Your task to perform on an android device: turn off wifi Image 0: 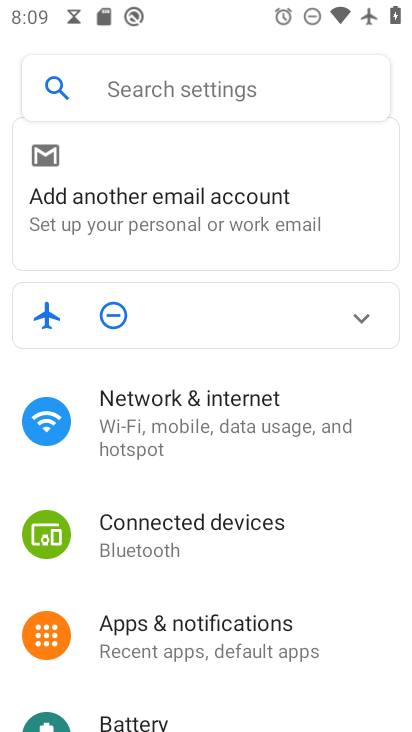
Step 0: press home button
Your task to perform on an android device: turn off wifi Image 1: 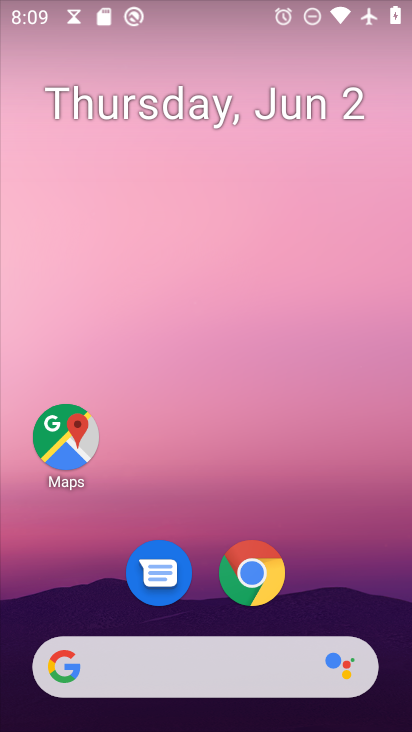
Step 1: drag from (213, 658) to (395, 31)
Your task to perform on an android device: turn off wifi Image 2: 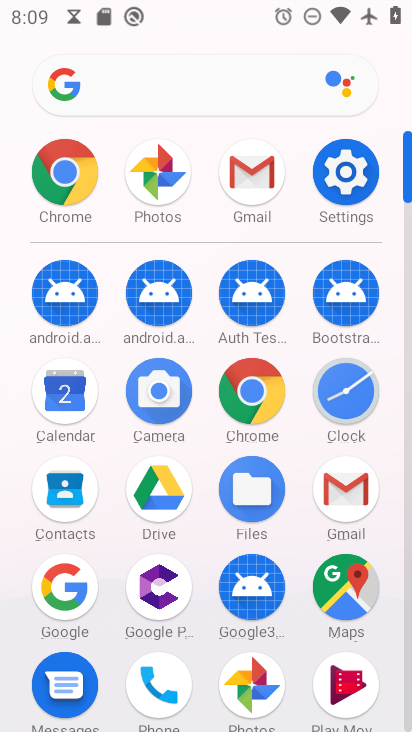
Step 2: click (361, 162)
Your task to perform on an android device: turn off wifi Image 3: 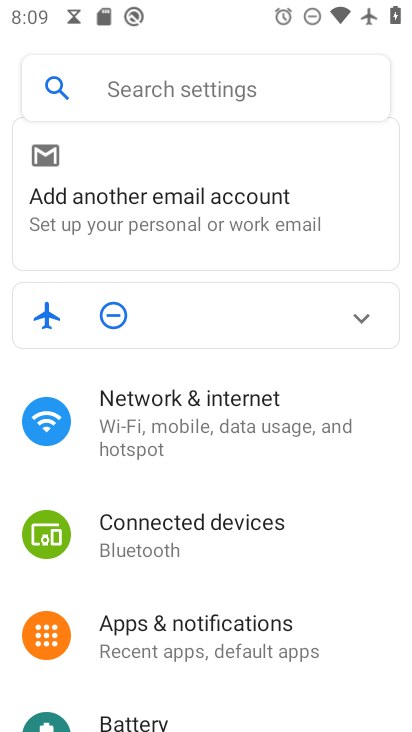
Step 3: click (204, 412)
Your task to perform on an android device: turn off wifi Image 4: 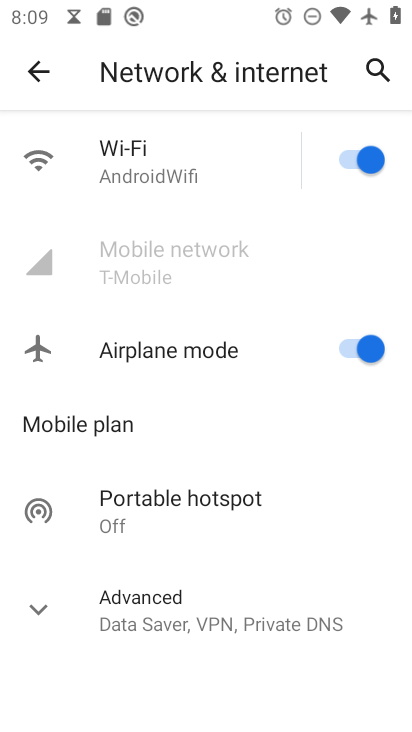
Step 4: click (353, 156)
Your task to perform on an android device: turn off wifi Image 5: 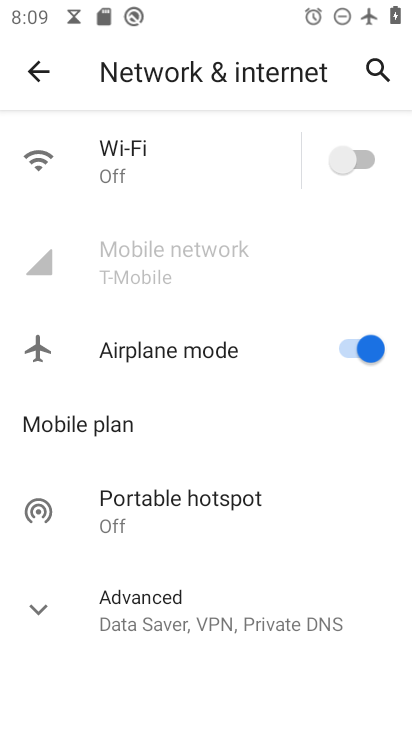
Step 5: task complete